Your task to perform on an android device: What's on my calendar tomorrow? Image 0: 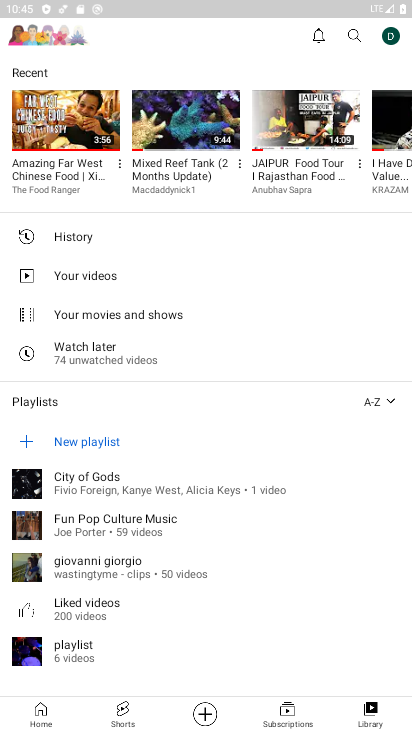
Step 0: press home button
Your task to perform on an android device: What's on my calendar tomorrow? Image 1: 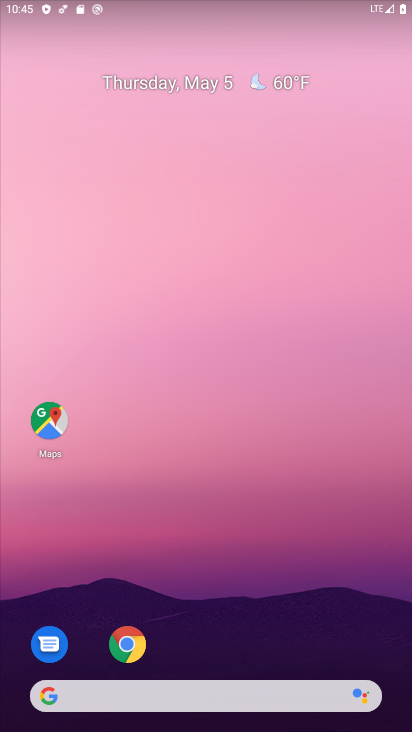
Step 1: drag from (332, 612) to (309, 183)
Your task to perform on an android device: What's on my calendar tomorrow? Image 2: 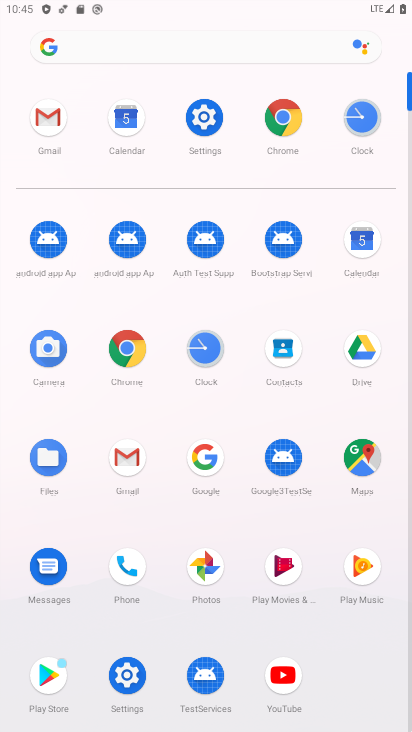
Step 2: click (359, 251)
Your task to perform on an android device: What's on my calendar tomorrow? Image 3: 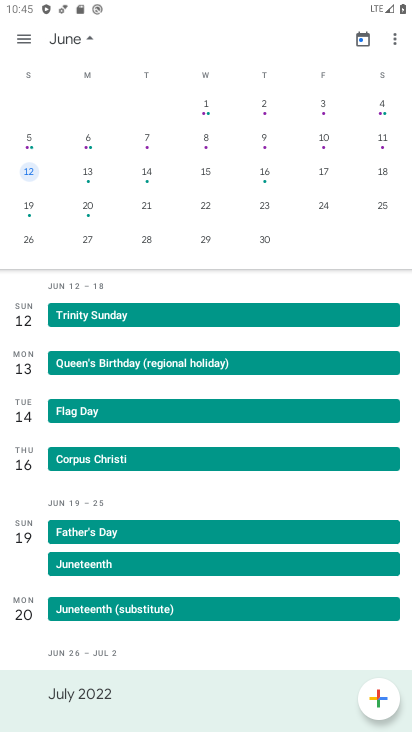
Step 3: drag from (85, 96) to (391, 89)
Your task to perform on an android device: What's on my calendar tomorrow? Image 4: 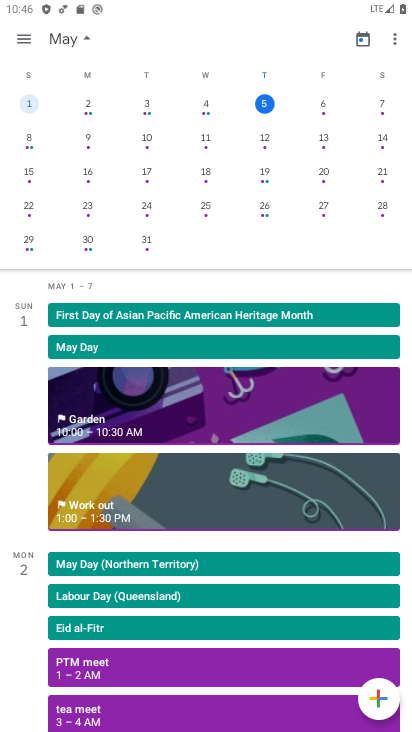
Step 4: click (388, 97)
Your task to perform on an android device: What's on my calendar tomorrow? Image 5: 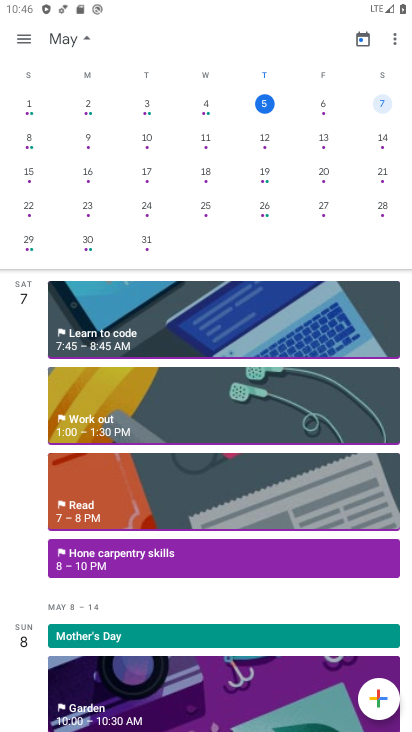
Step 5: task complete